Your task to perform on an android device: Search for vegetarian restaurants on Maps Image 0: 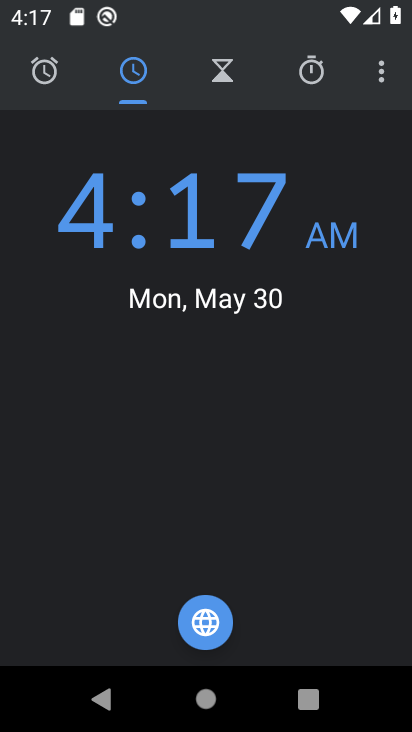
Step 0: press home button
Your task to perform on an android device: Search for vegetarian restaurants on Maps Image 1: 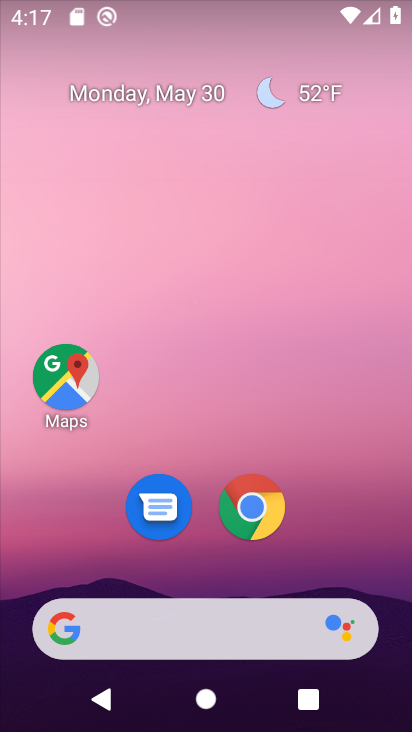
Step 1: click (73, 393)
Your task to perform on an android device: Search for vegetarian restaurants on Maps Image 2: 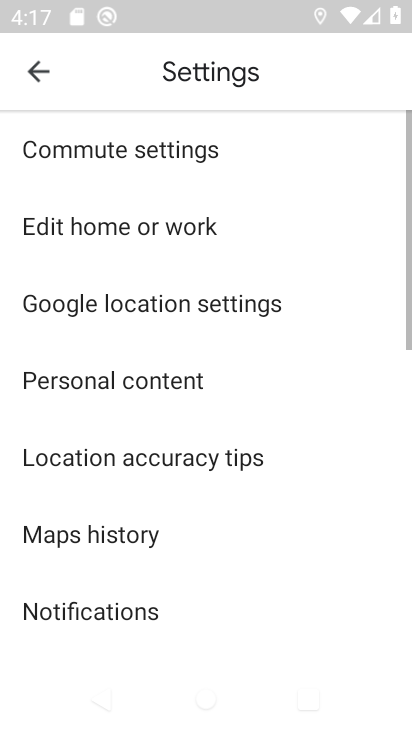
Step 2: click (50, 78)
Your task to perform on an android device: Search for vegetarian restaurants on Maps Image 3: 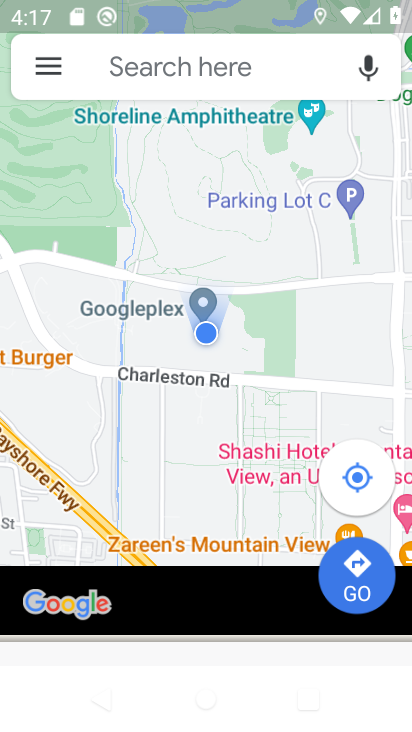
Step 3: click (50, 78)
Your task to perform on an android device: Search for vegetarian restaurants on Maps Image 4: 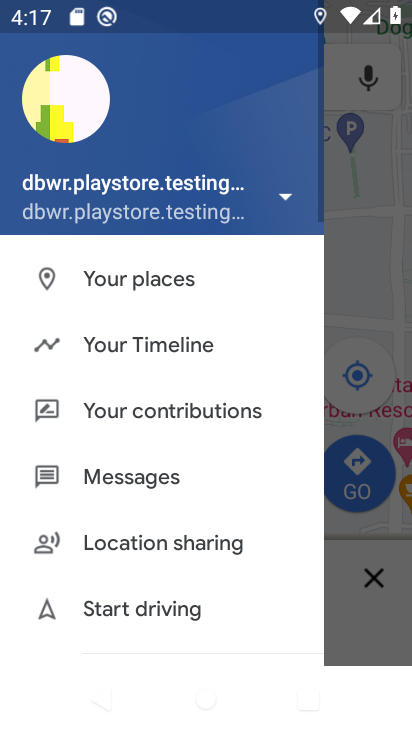
Step 4: click (347, 117)
Your task to perform on an android device: Search for vegetarian restaurants on Maps Image 5: 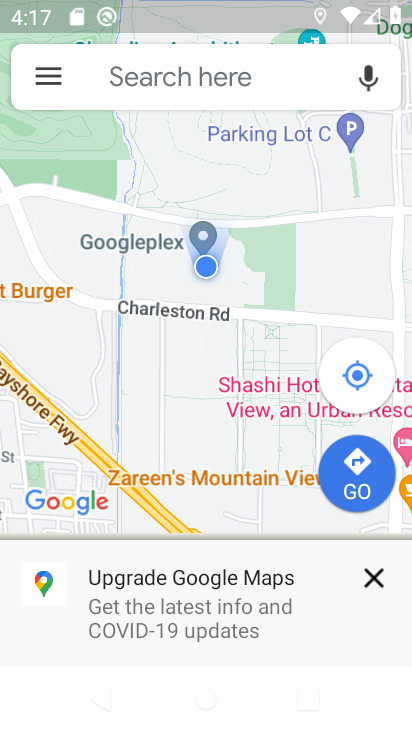
Step 5: click (270, 86)
Your task to perform on an android device: Search for vegetarian restaurants on Maps Image 6: 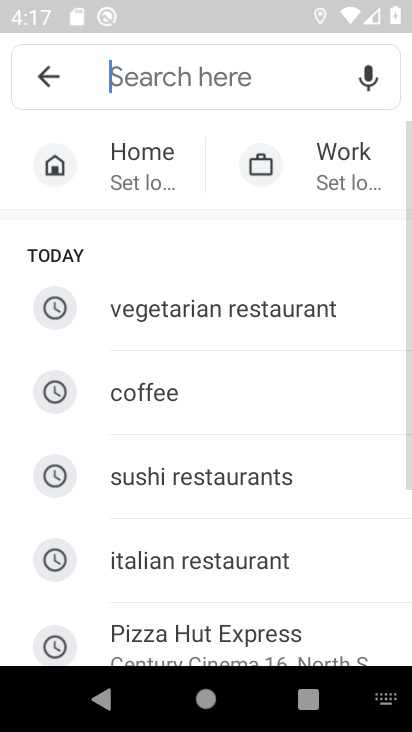
Step 6: type " vegetarian restaurants"
Your task to perform on an android device: Search for vegetarian restaurants on Maps Image 7: 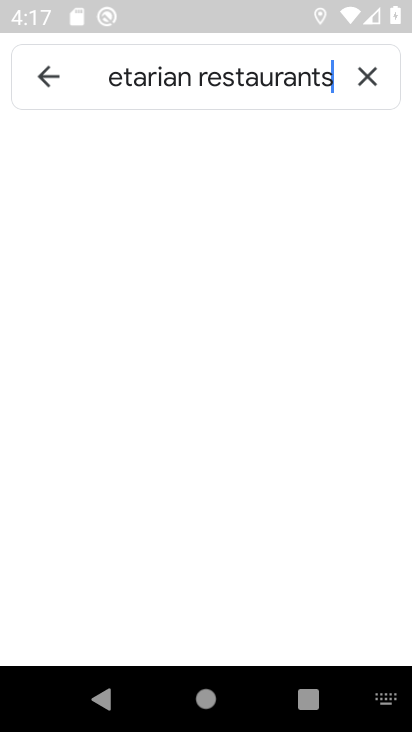
Step 7: click (146, 121)
Your task to perform on an android device: Search for vegetarian restaurants on Maps Image 8: 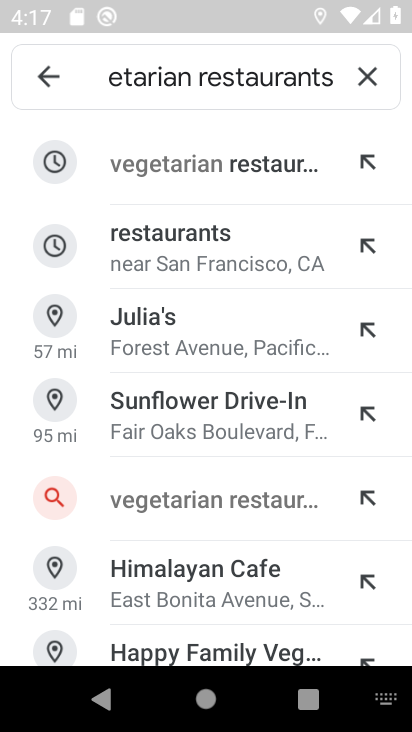
Step 8: click (228, 147)
Your task to perform on an android device: Search for vegetarian restaurants on Maps Image 9: 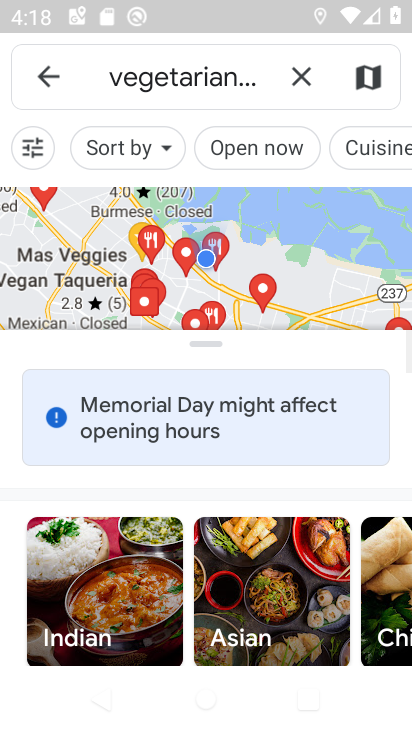
Step 9: task complete